Your task to perform on an android device: toggle javascript in the chrome app Image 0: 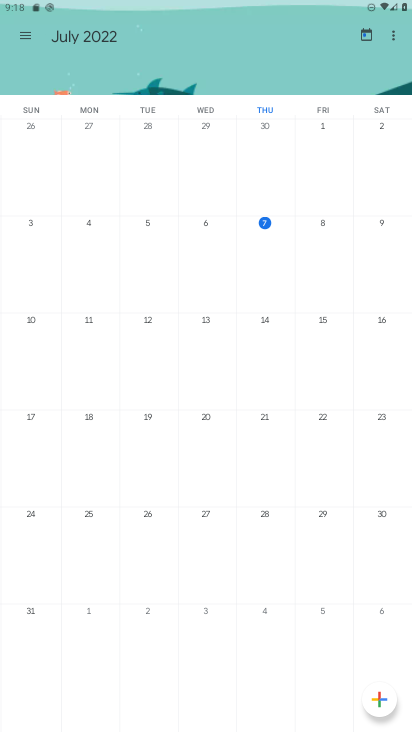
Step 0: press home button
Your task to perform on an android device: toggle javascript in the chrome app Image 1: 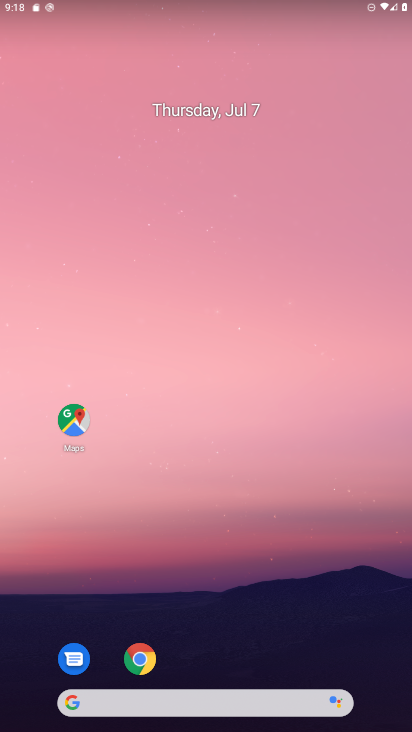
Step 1: click (147, 661)
Your task to perform on an android device: toggle javascript in the chrome app Image 2: 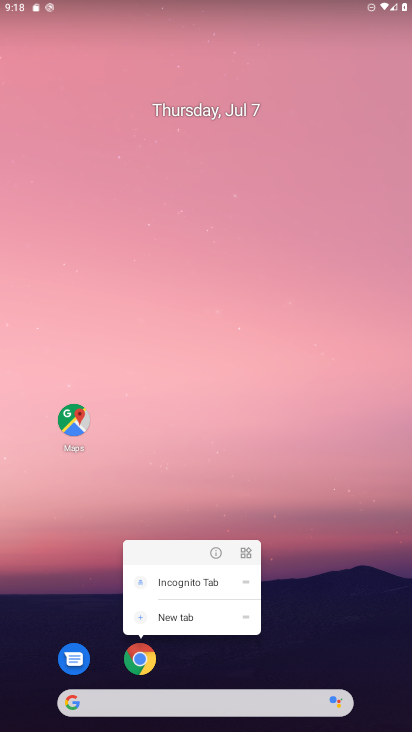
Step 2: click (147, 661)
Your task to perform on an android device: toggle javascript in the chrome app Image 3: 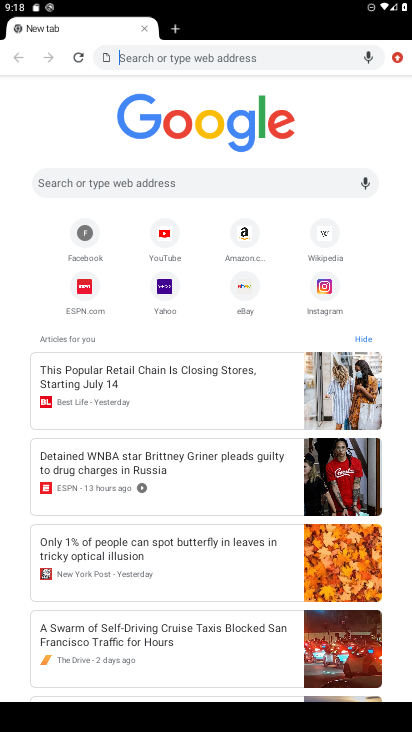
Step 3: click (401, 55)
Your task to perform on an android device: toggle javascript in the chrome app Image 4: 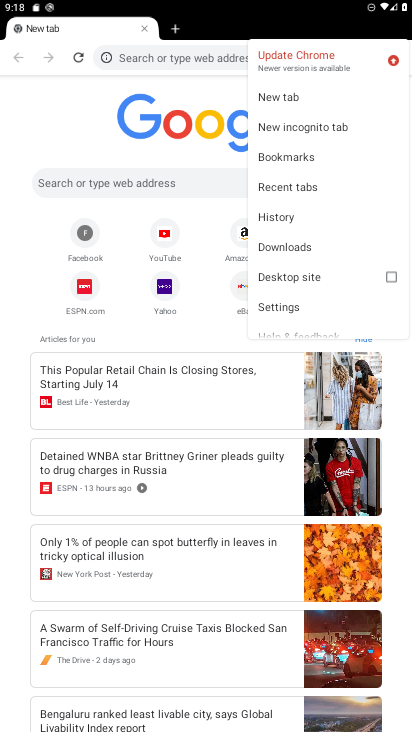
Step 4: click (280, 306)
Your task to perform on an android device: toggle javascript in the chrome app Image 5: 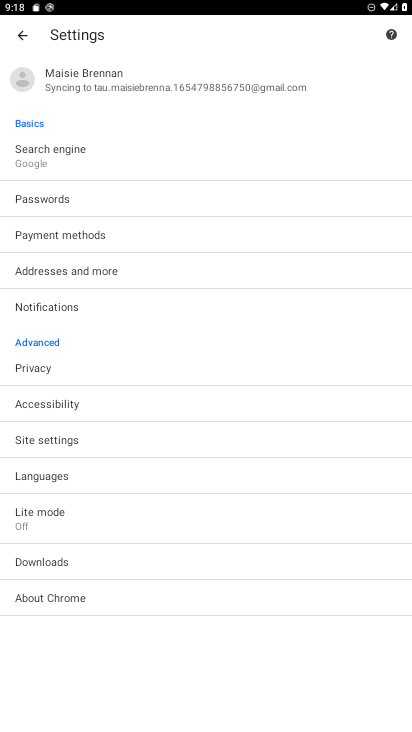
Step 5: click (90, 428)
Your task to perform on an android device: toggle javascript in the chrome app Image 6: 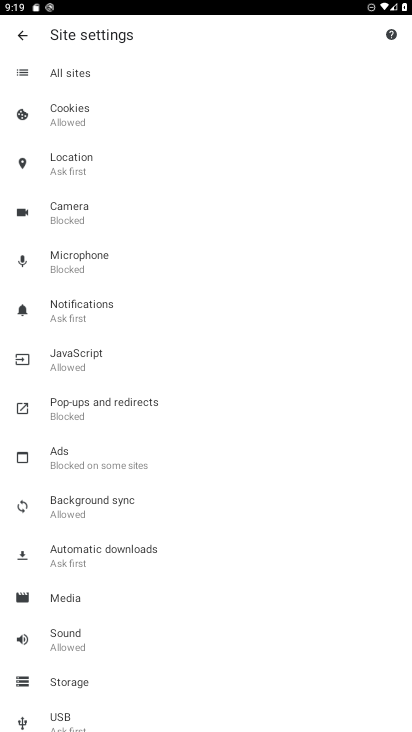
Step 6: click (81, 364)
Your task to perform on an android device: toggle javascript in the chrome app Image 7: 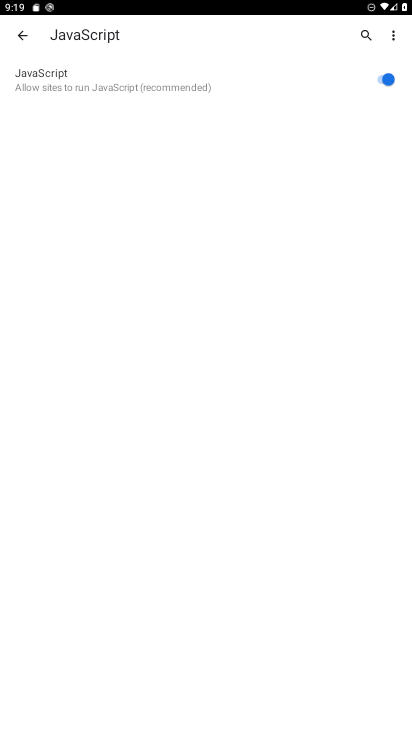
Step 7: click (367, 84)
Your task to perform on an android device: toggle javascript in the chrome app Image 8: 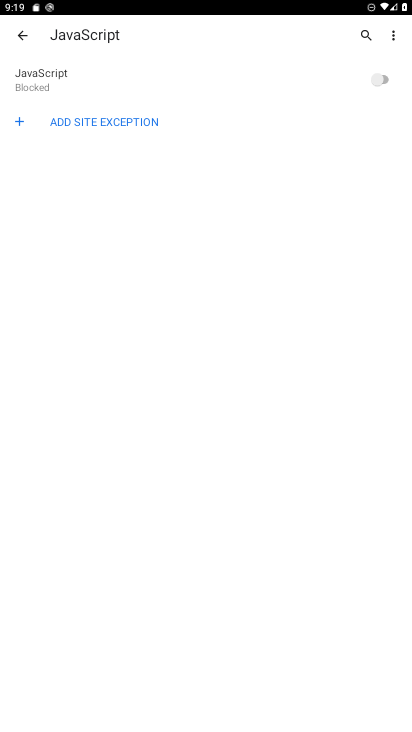
Step 8: task complete